Your task to perform on an android device: set the timer Image 0: 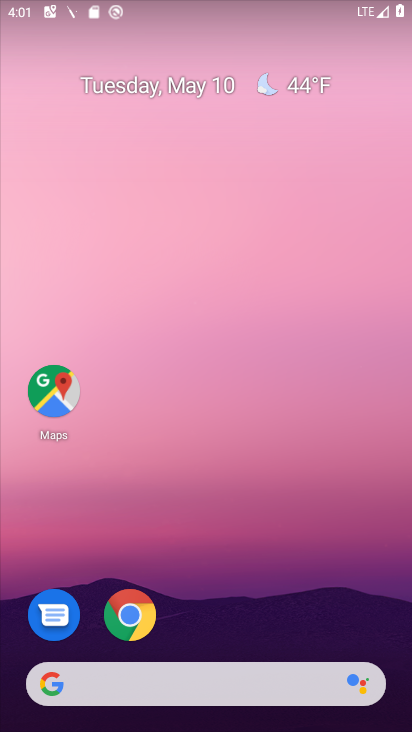
Step 0: drag from (199, 582) to (192, 6)
Your task to perform on an android device: set the timer Image 1: 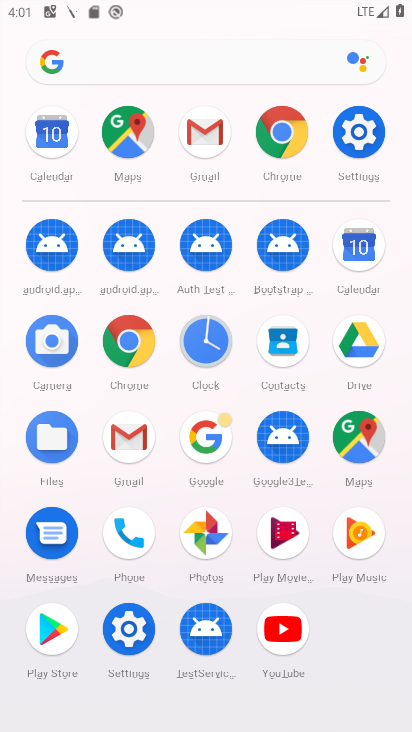
Step 1: click (218, 353)
Your task to perform on an android device: set the timer Image 2: 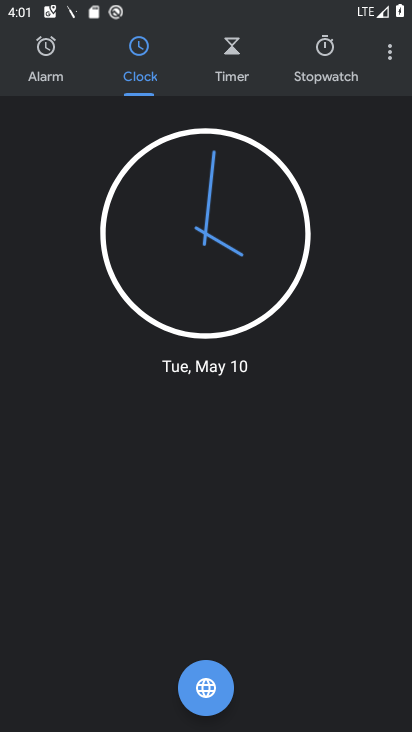
Step 2: click (317, 56)
Your task to perform on an android device: set the timer Image 3: 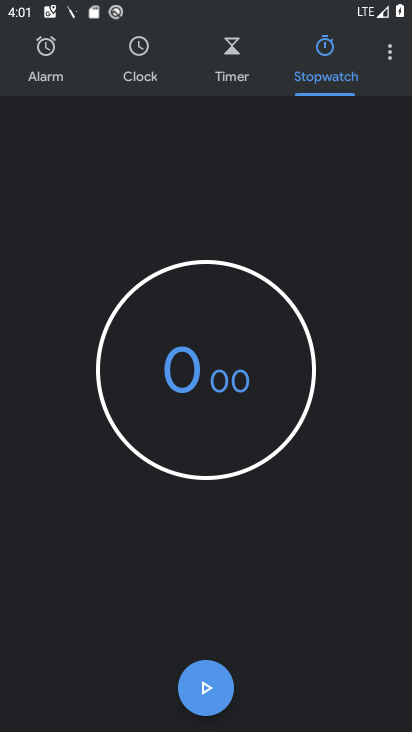
Step 3: click (201, 675)
Your task to perform on an android device: set the timer Image 4: 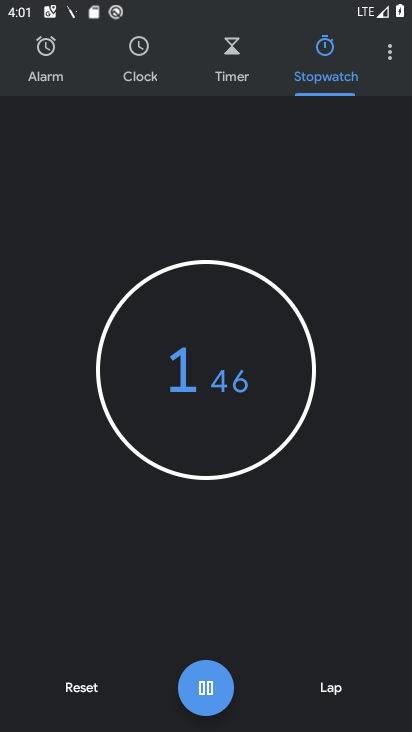
Step 4: click (224, 47)
Your task to perform on an android device: set the timer Image 5: 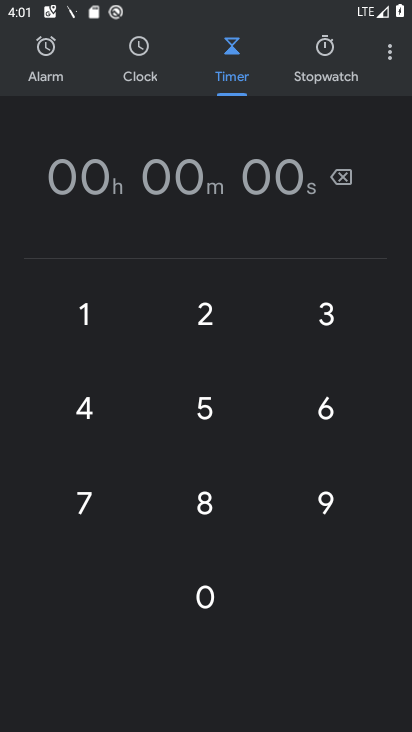
Step 5: click (202, 410)
Your task to perform on an android device: set the timer Image 6: 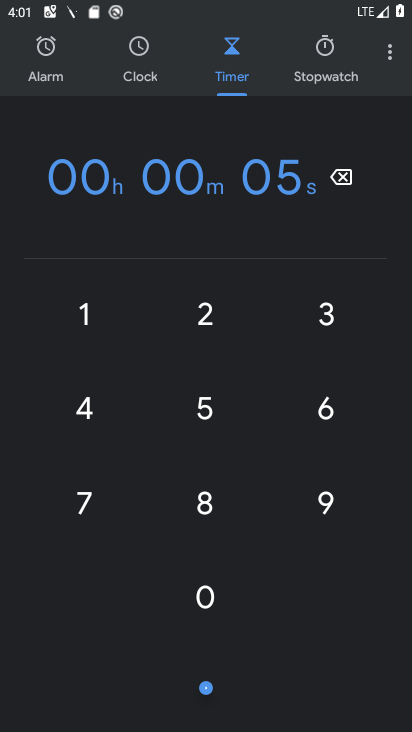
Step 6: click (305, 417)
Your task to perform on an android device: set the timer Image 7: 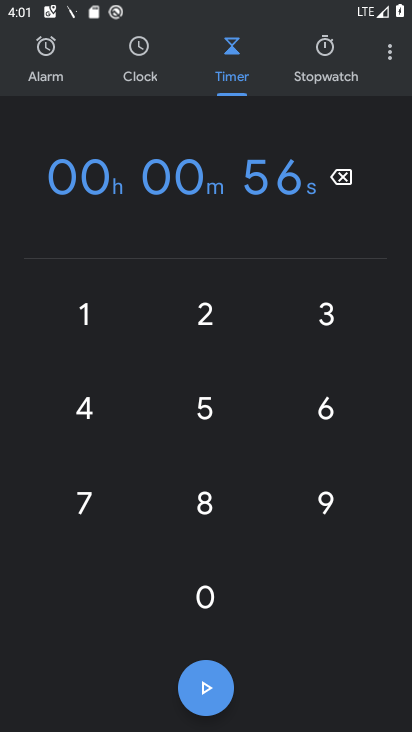
Step 7: click (212, 318)
Your task to perform on an android device: set the timer Image 8: 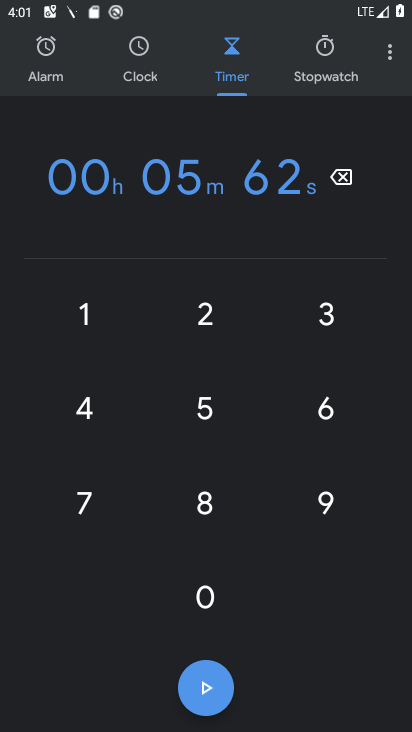
Step 8: click (334, 310)
Your task to perform on an android device: set the timer Image 9: 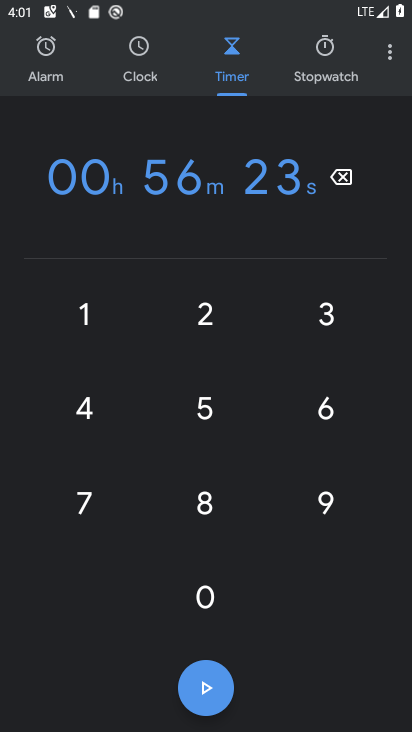
Step 9: click (73, 325)
Your task to perform on an android device: set the timer Image 10: 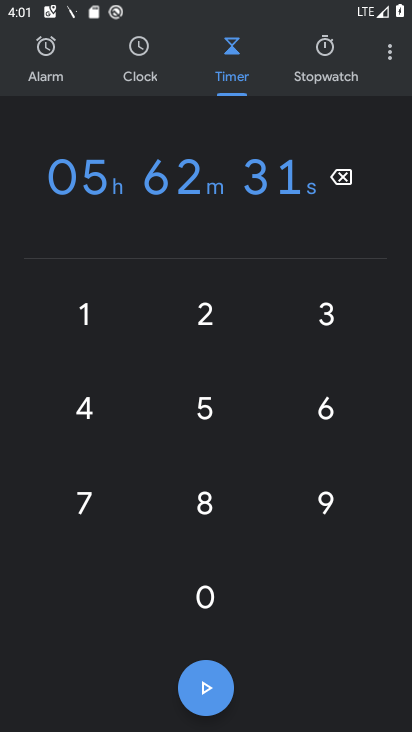
Step 10: click (195, 324)
Your task to perform on an android device: set the timer Image 11: 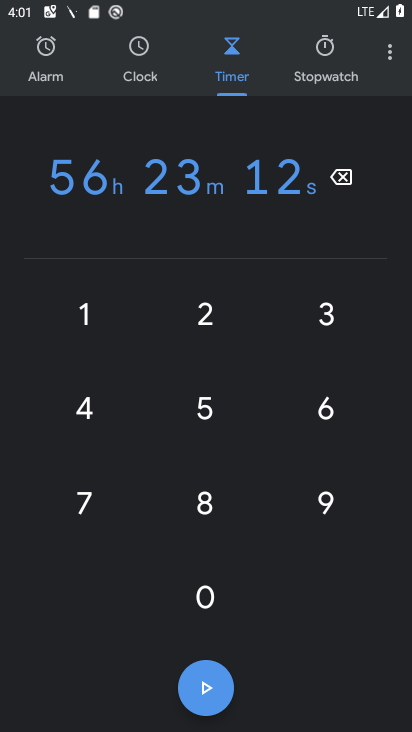
Step 11: click (209, 679)
Your task to perform on an android device: set the timer Image 12: 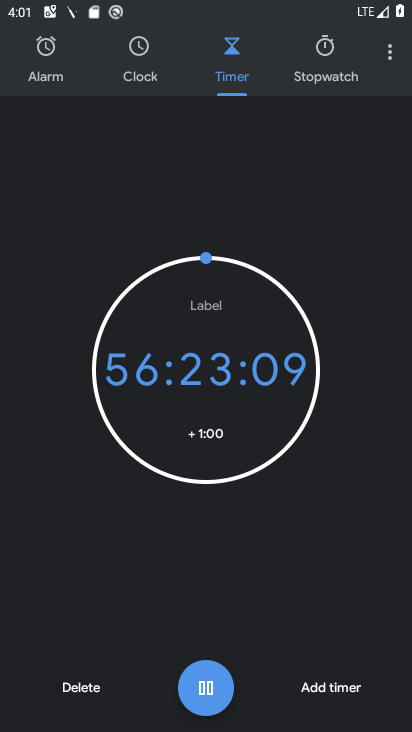
Step 12: task complete